Your task to perform on an android device: Open the phone app and click the voicemail tab. Image 0: 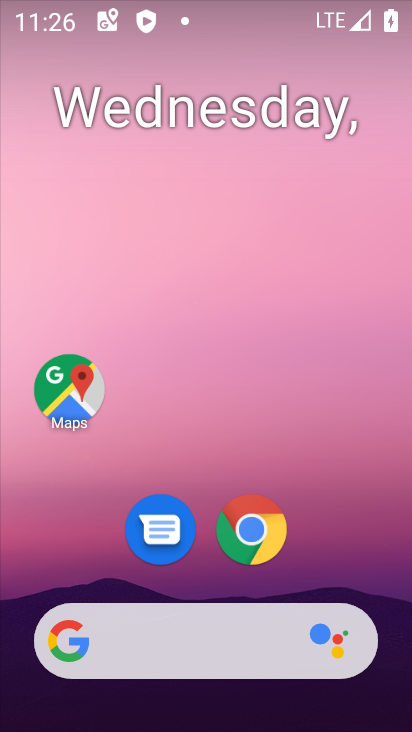
Step 0: drag from (199, 592) to (336, 25)
Your task to perform on an android device: Open the phone app and click the voicemail tab. Image 1: 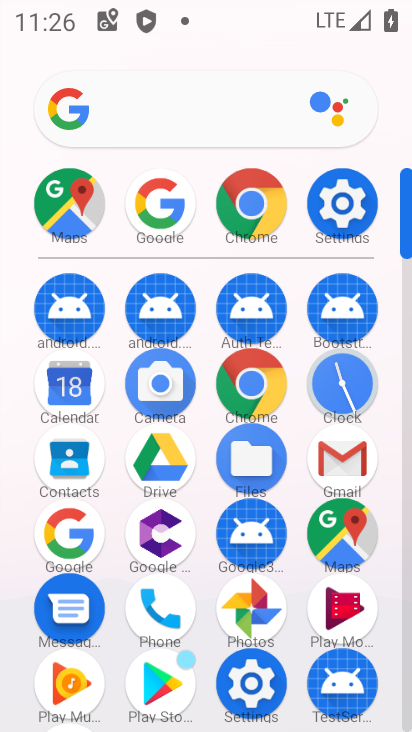
Step 1: click (180, 609)
Your task to perform on an android device: Open the phone app and click the voicemail tab. Image 2: 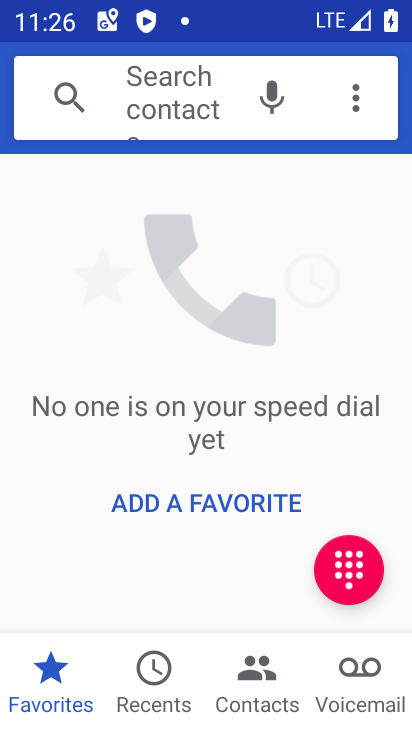
Step 2: click (344, 696)
Your task to perform on an android device: Open the phone app and click the voicemail tab. Image 3: 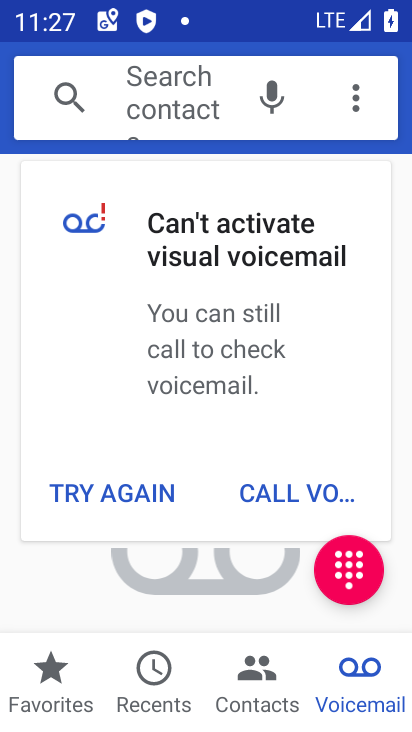
Step 3: click (359, 700)
Your task to perform on an android device: Open the phone app and click the voicemail tab. Image 4: 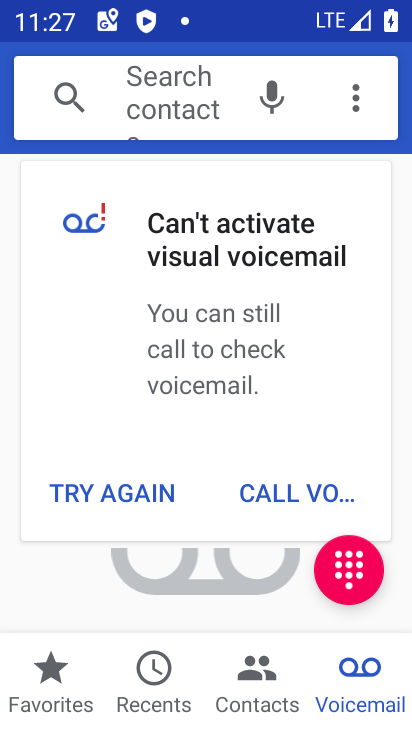
Step 4: task complete